Your task to perform on an android device: open app "Lyft - Rideshare, Bikes, Scooters & Transit" (install if not already installed) Image 0: 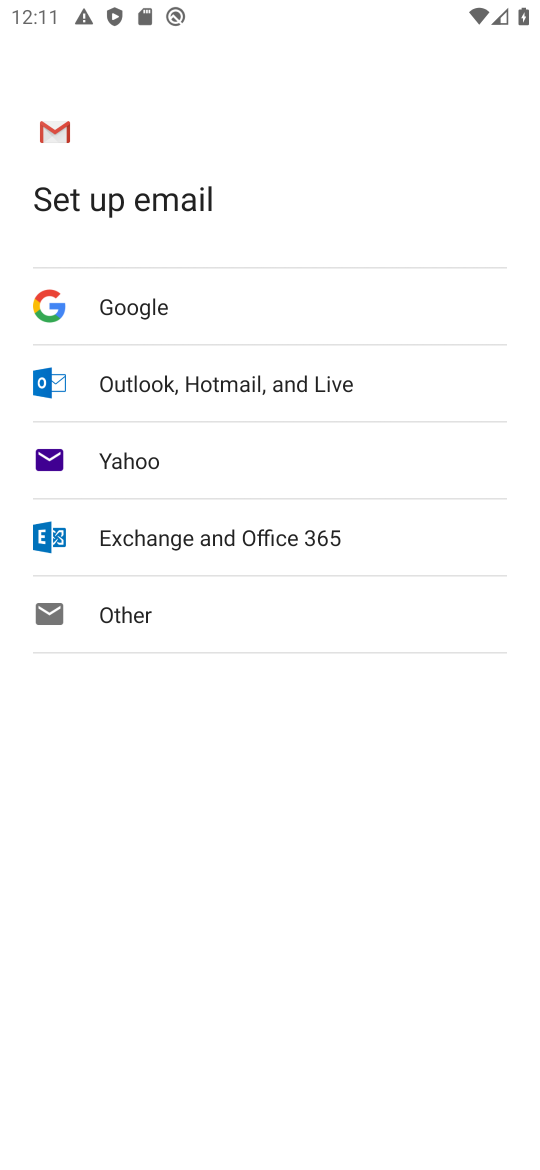
Step 0: press home button
Your task to perform on an android device: open app "Lyft - Rideshare, Bikes, Scooters & Transit" (install if not already installed) Image 1: 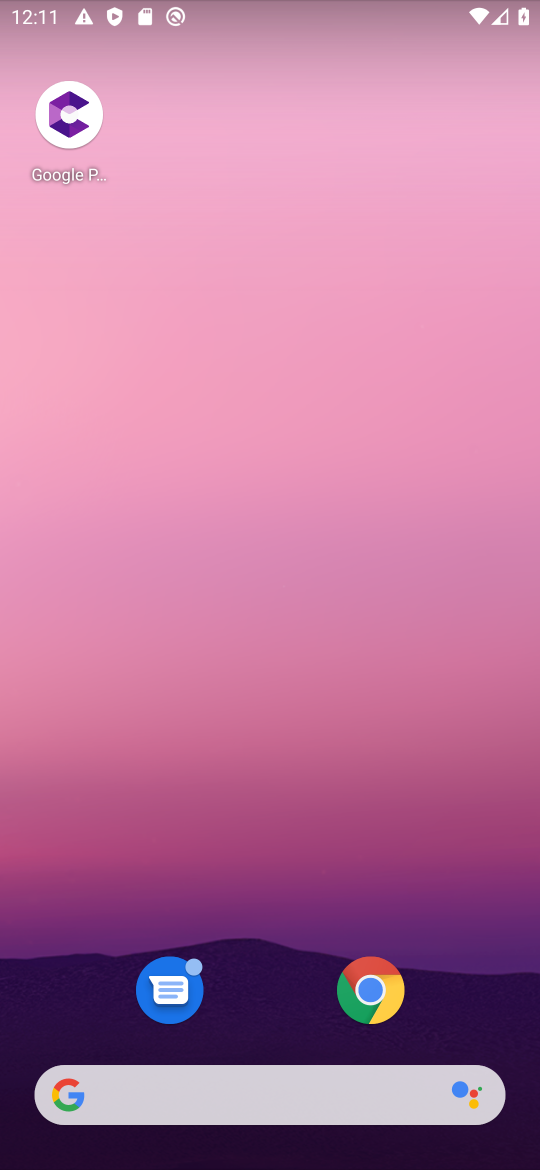
Step 1: drag from (263, 927) to (262, 194)
Your task to perform on an android device: open app "Lyft - Rideshare, Bikes, Scooters & Transit" (install if not already installed) Image 2: 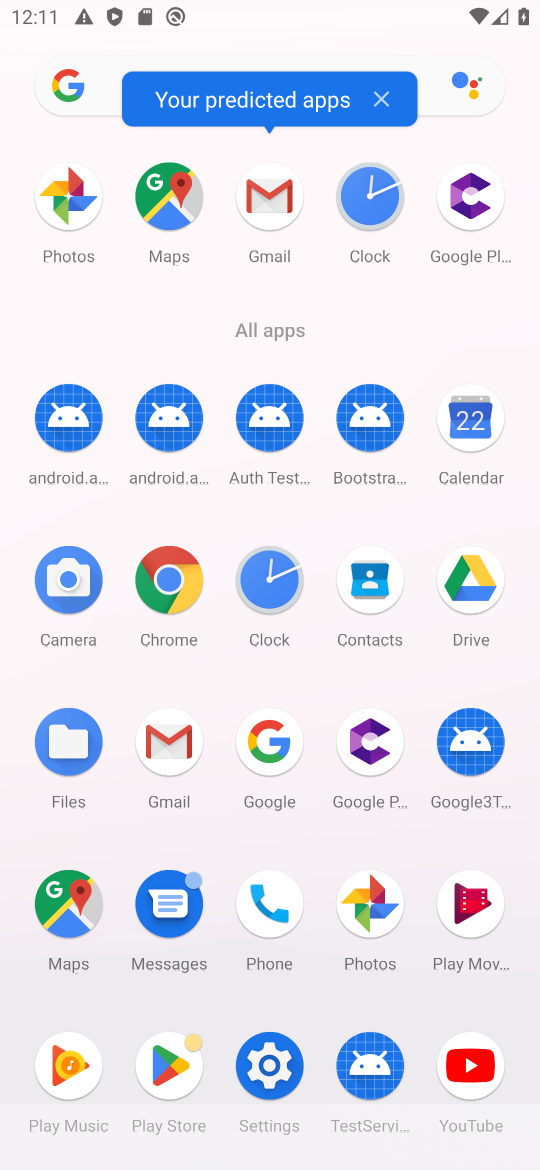
Step 2: click (148, 1076)
Your task to perform on an android device: open app "Lyft - Rideshare, Bikes, Scooters & Transit" (install if not already installed) Image 3: 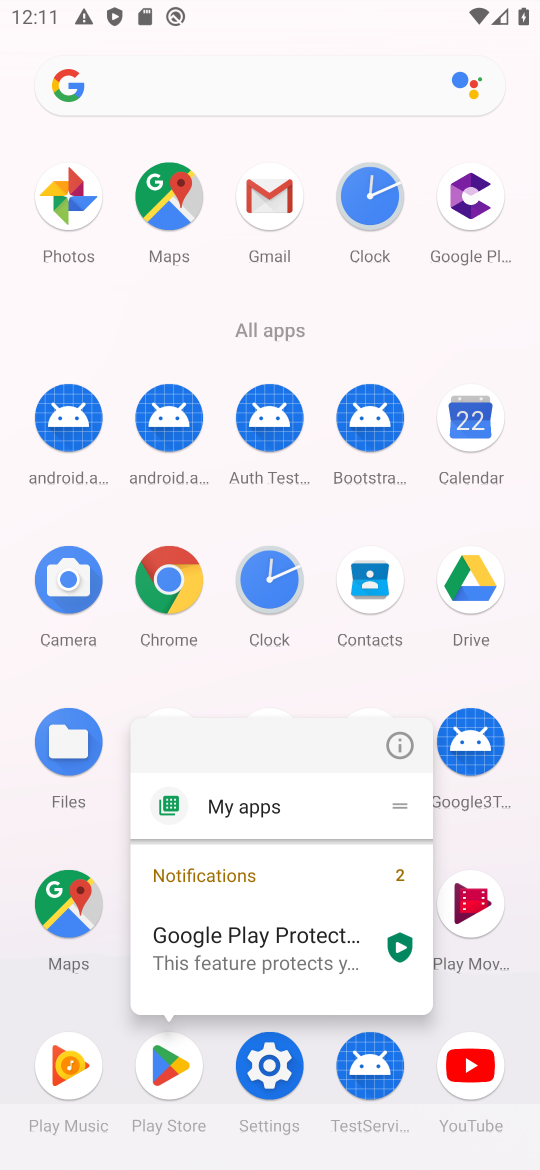
Step 3: click (178, 1037)
Your task to perform on an android device: open app "Lyft - Rideshare, Bikes, Scooters & Transit" (install if not already installed) Image 4: 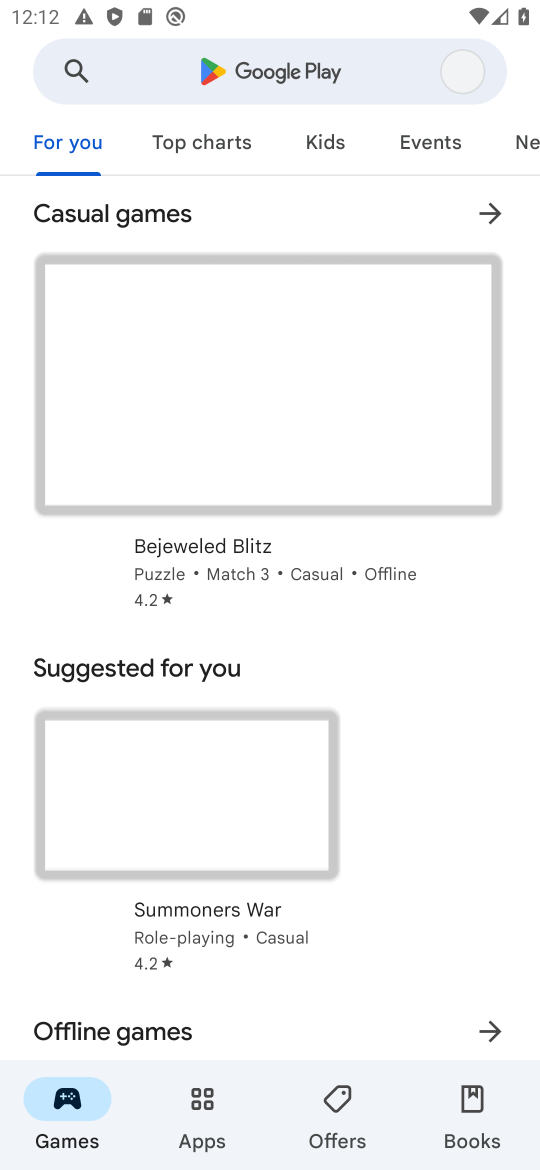
Step 4: click (268, 67)
Your task to perform on an android device: open app "Lyft - Rideshare, Bikes, Scooters & Transit" (install if not already installed) Image 5: 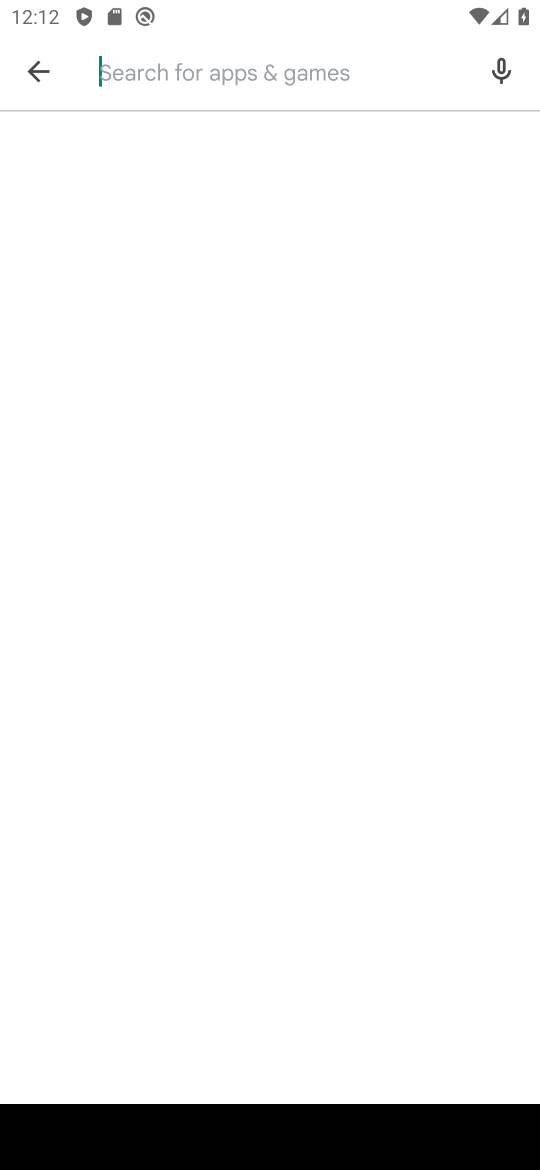
Step 5: type "Lyft - Rideshare, Bikes, Scooters & Transit"
Your task to perform on an android device: open app "Lyft - Rideshare, Bikes, Scooters & Transit" (install if not already installed) Image 6: 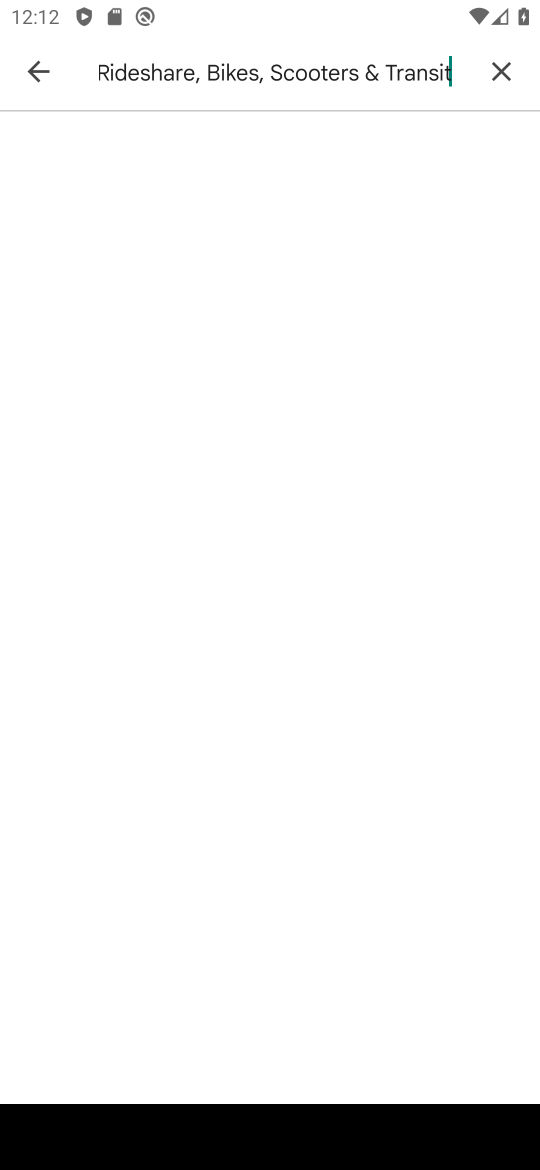
Step 6: type ""
Your task to perform on an android device: open app "Lyft - Rideshare, Bikes, Scooters & Transit" (install if not already installed) Image 7: 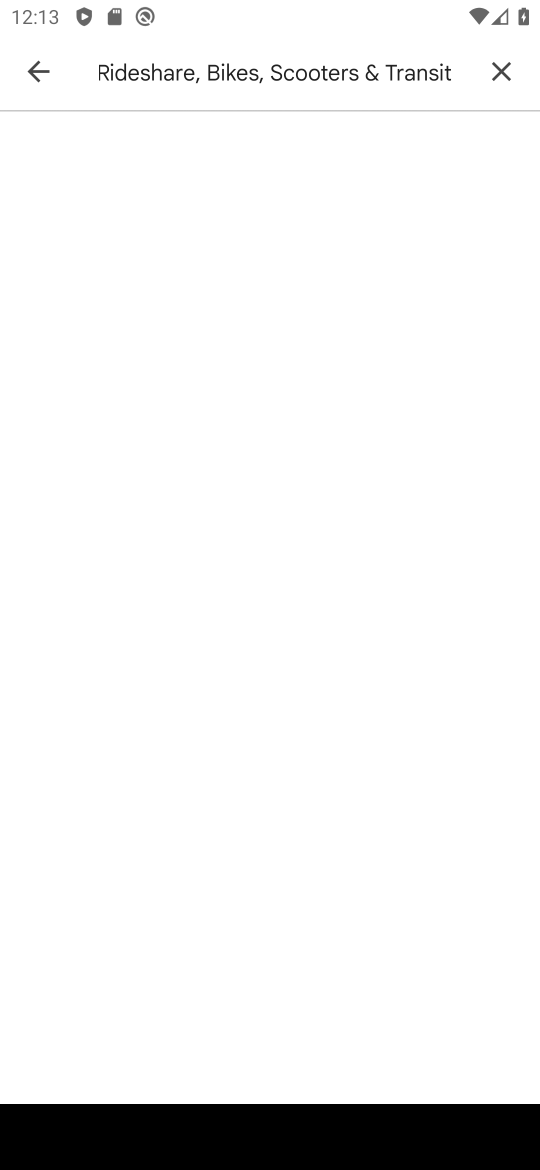
Step 7: task complete